Your task to perform on an android device: turn off location history Image 0: 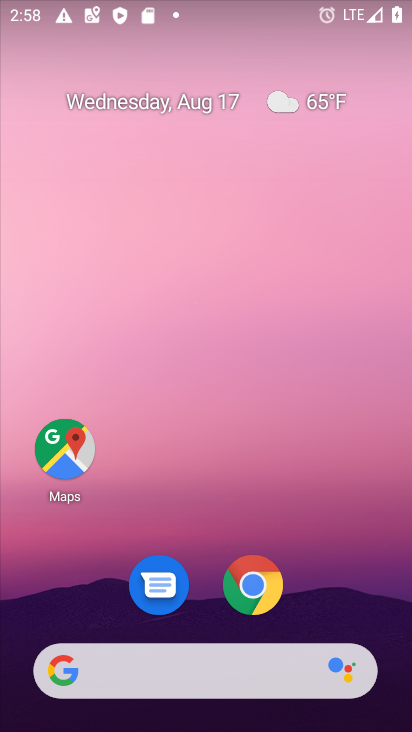
Step 0: drag from (309, 536) to (410, 5)
Your task to perform on an android device: turn off location history Image 1: 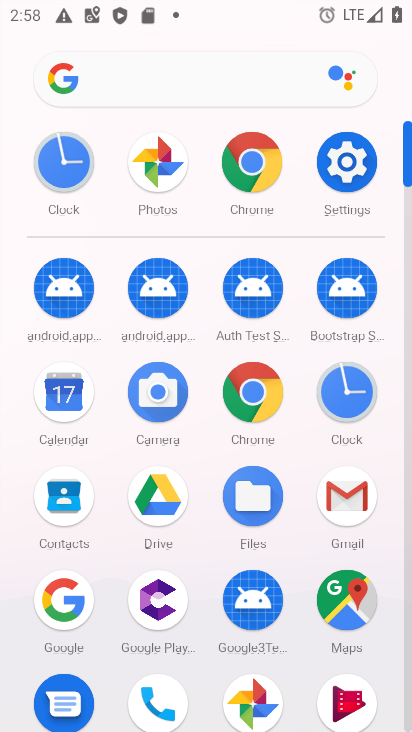
Step 1: click (345, 155)
Your task to perform on an android device: turn off location history Image 2: 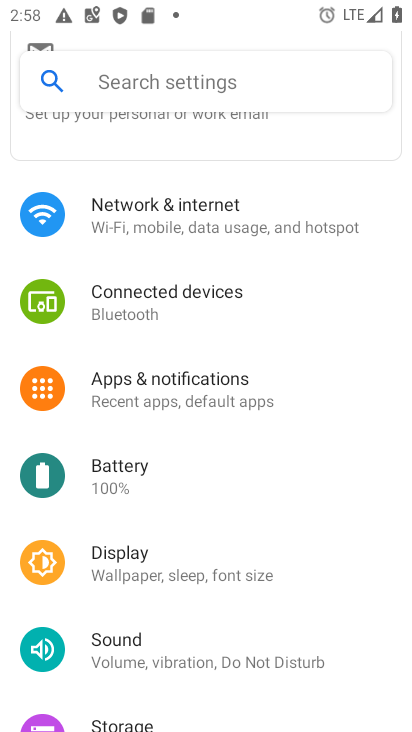
Step 2: drag from (250, 611) to (288, 69)
Your task to perform on an android device: turn off location history Image 3: 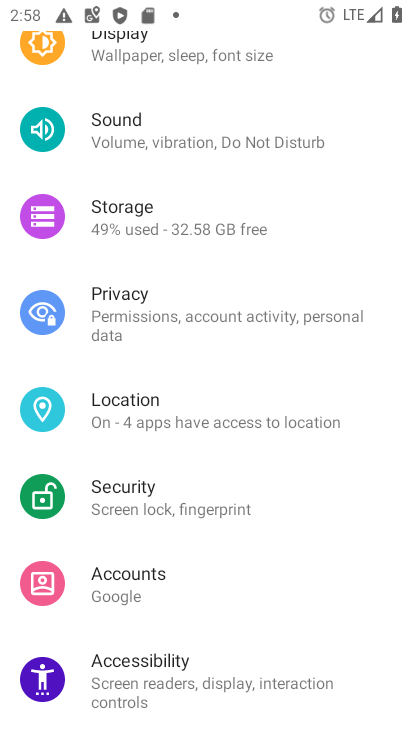
Step 3: click (176, 409)
Your task to perform on an android device: turn off location history Image 4: 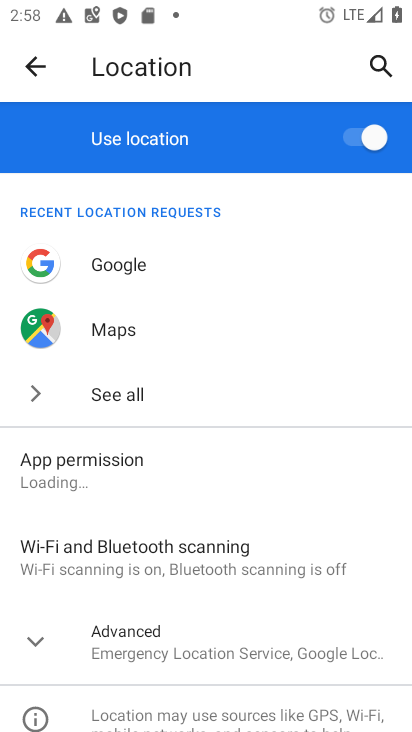
Step 4: click (35, 637)
Your task to perform on an android device: turn off location history Image 5: 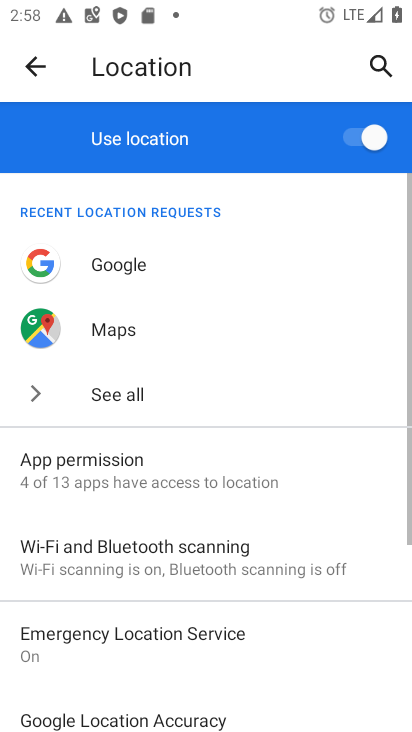
Step 5: drag from (267, 289) to (272, 88)
Your task to perform on an android device: turn off location history Image 6: 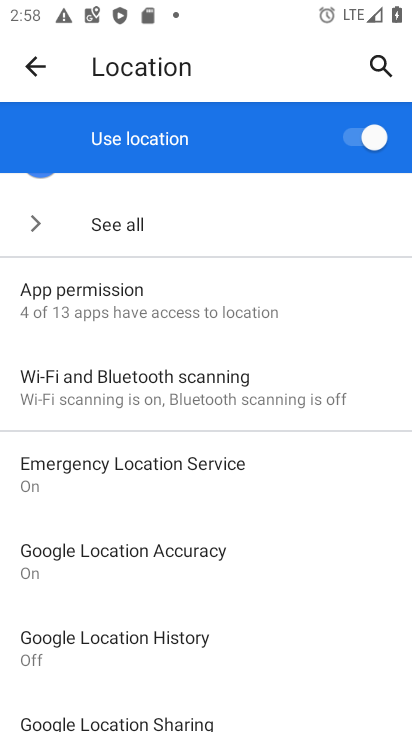
Step 6: click (148, 638)
Your task to perform on an android device: turn off location history Image 7: 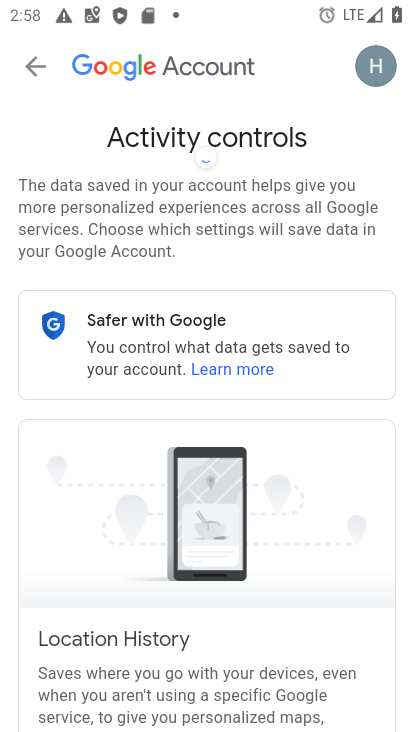
Step 7: task complete